Your task to perform on an android device: Go to eBay Image 0: 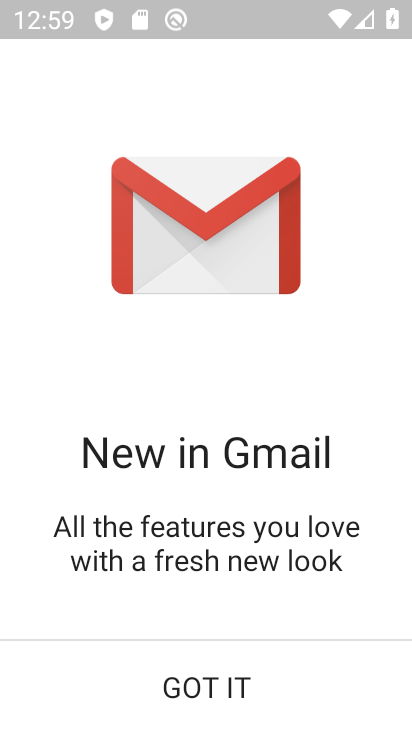
Step 0: press home button
Your task to perform on an android device: Go to eBay Image 1: 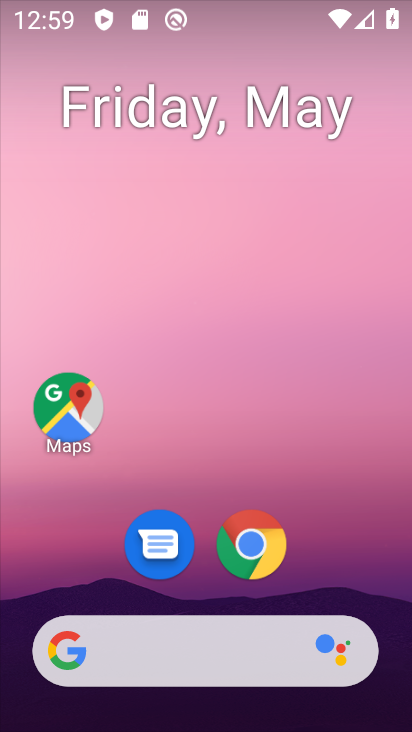
Step 1: click (257, 546)
Your task to perform on an android device: Go to eBay Image 2: 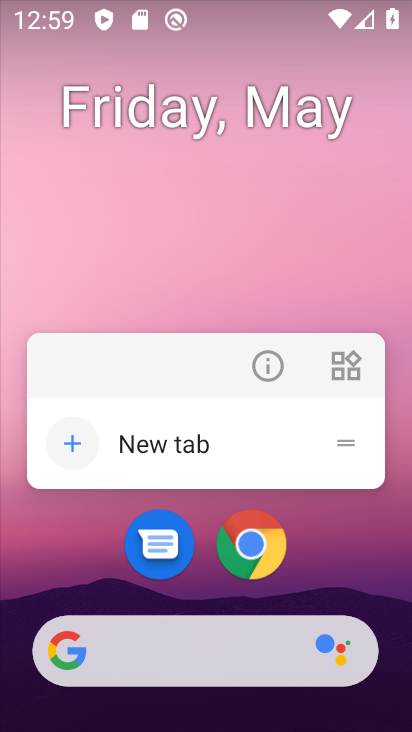
Step 2: click (254, 373)
Your task to perform on an android device: Go to eBay Image 3: 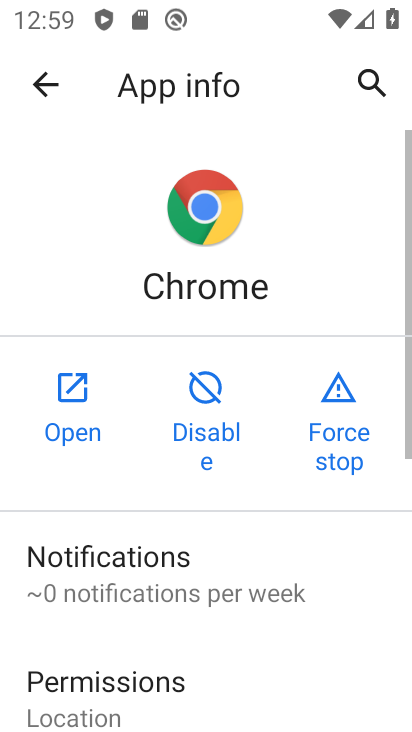
Step 3: click (71, 405)
Your task to perform on an android device: Go to eBay Image 4: 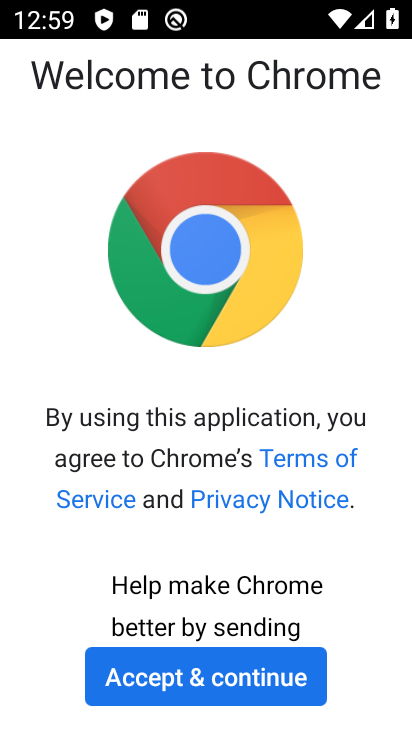
Step 4: click (220, 694)
Your task to perform on an android device: Go to eBay Image 5: 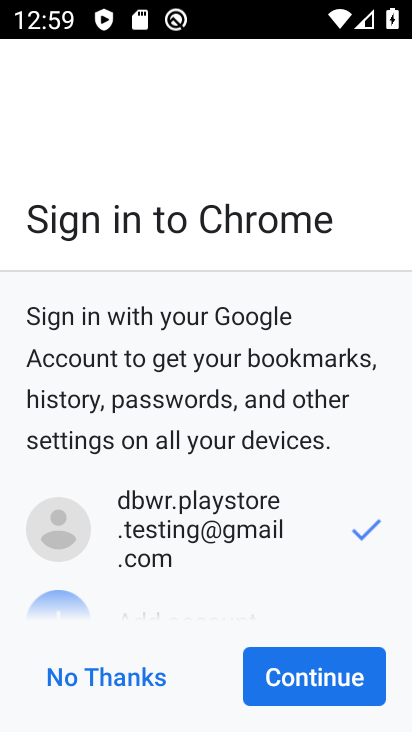
Step 5: click (93, 690)
Your task to perform on an android device: Go to eBay Image 6: 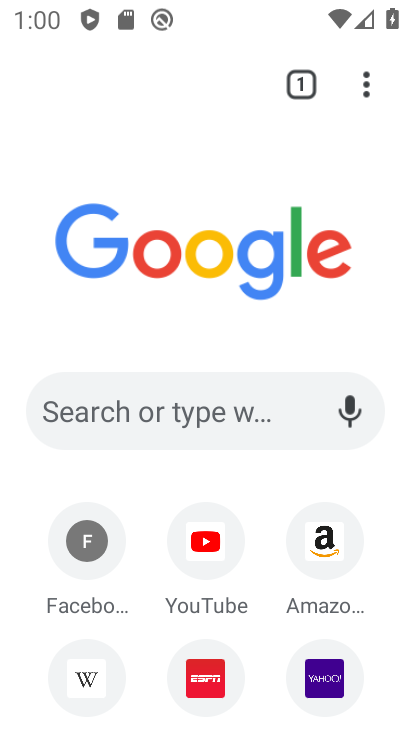
Step 6: click (234, 409)
Your task to perform on an android device: Go to eBay Image 7: 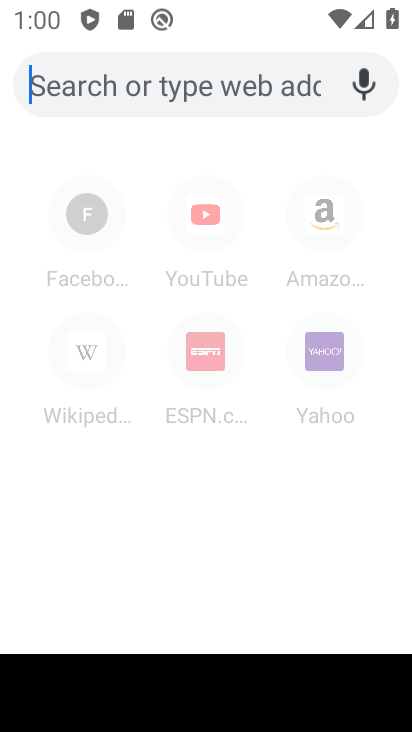
Step 7: type " eBay"
Your task to perform on an android device: Go to eBay Image 8: 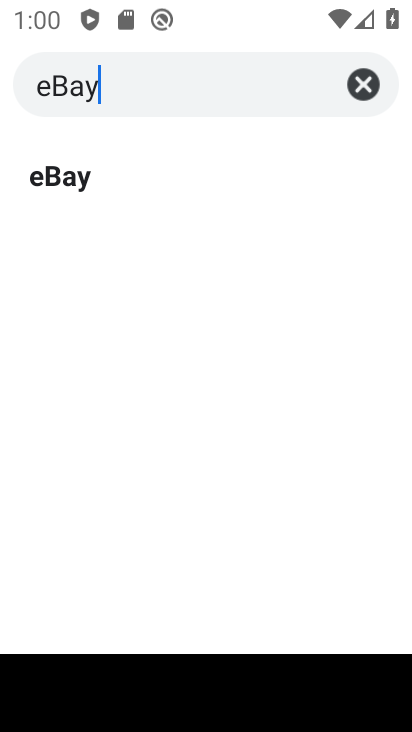
Step 8: type ""
Your task to perform on an android device: Go to eBay Image 9: 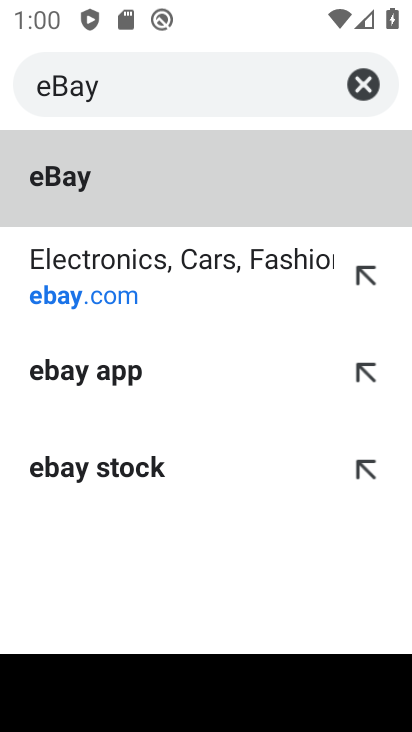
Step 9: click (111, 141)
Your task to perform on an android device: Go to eBay Image 10: 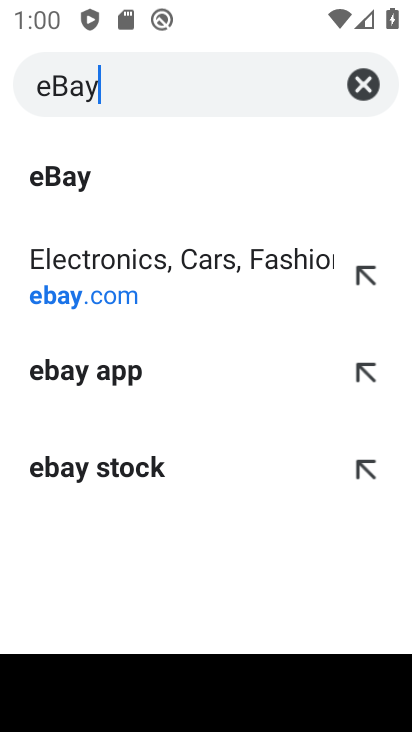
Step 10: click (101, 172)
Your task to perform on an android device: Go to eBay Image 11: 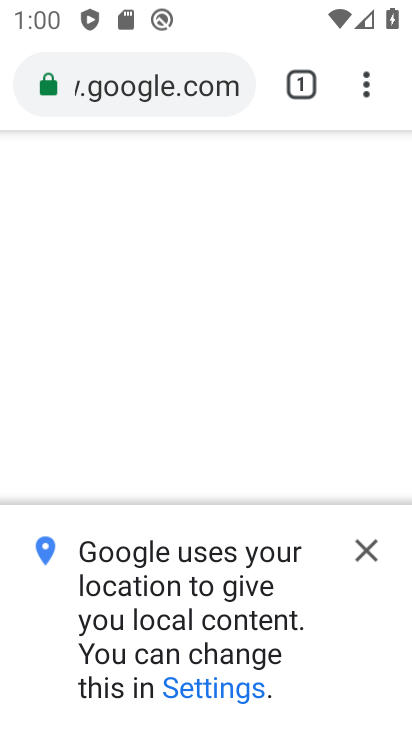
Step 11: click (362, 546)
Your task to perform on an android device: Go to eBay Image 12: 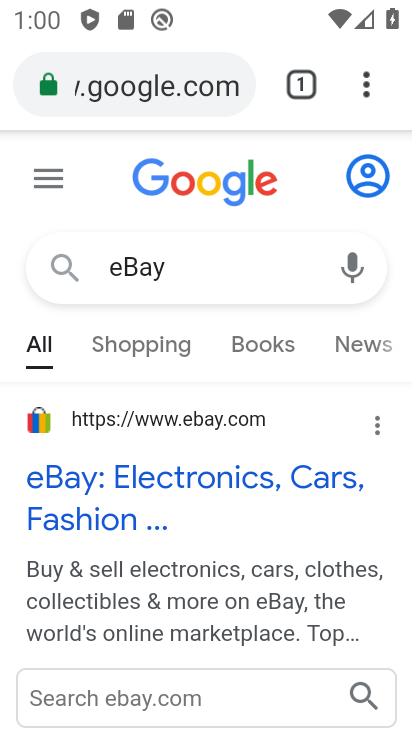
Step 12: click (234, 480)
Your task to perform on an android device: Go to eBay Image 13: 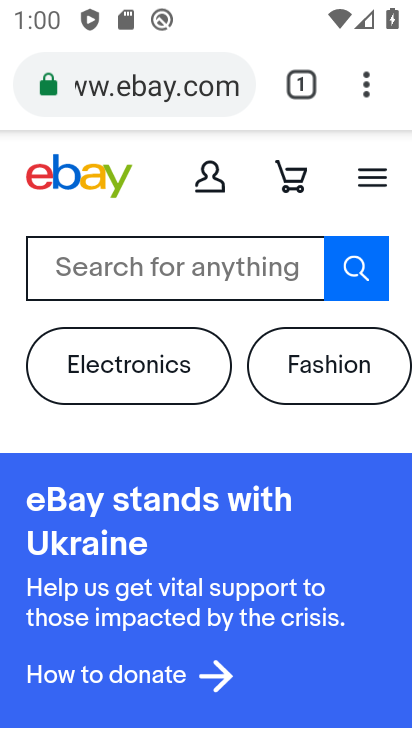
Step 13: task complete